Your task to perform on an android device: turn on notifications settings in the gmail app Image 0: 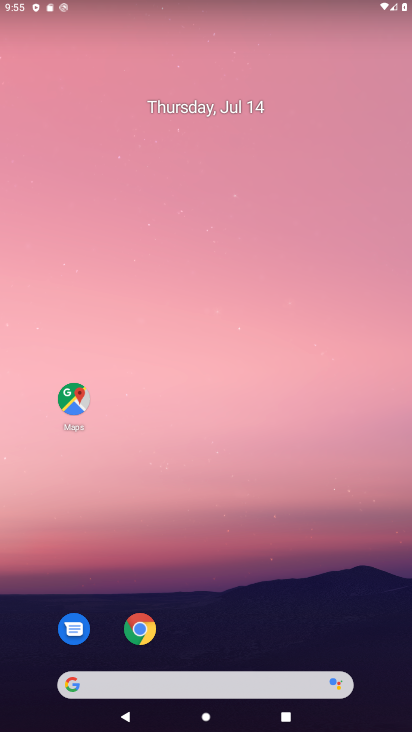
Step 0: drag from (266, 624) to (251, 15)
Your task to perform on an android device: turn on notifications settings in the gmail app Image 1: 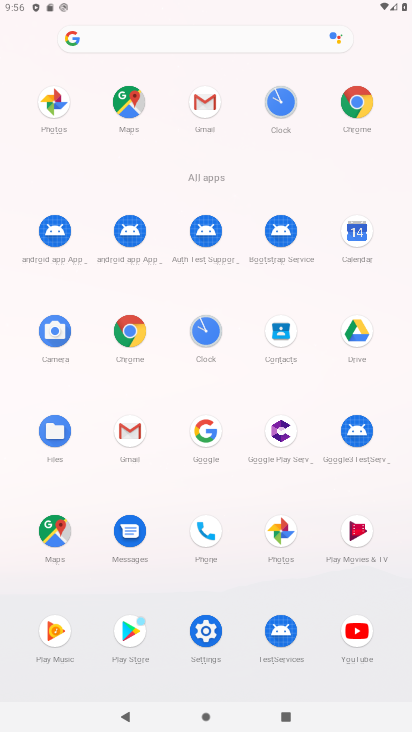
Step 1: click (123, 427)
Your task to perform on an android device: turn on notifications settings in the gmail app Image 2: 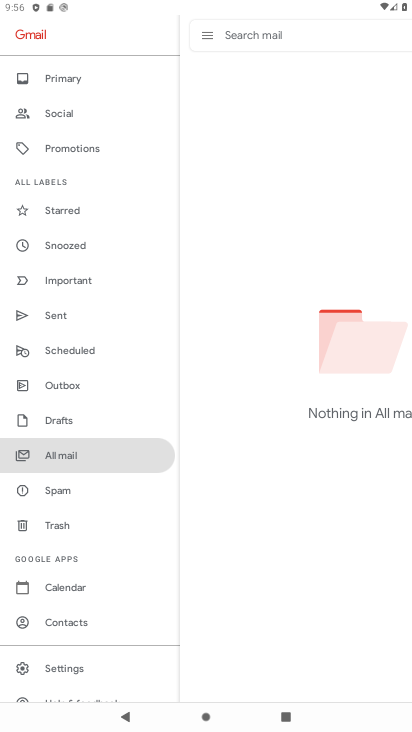
Step 2: click (69, 668)
Your task to perform on an android device: turn on notifications settings in the gmail app Image 3: 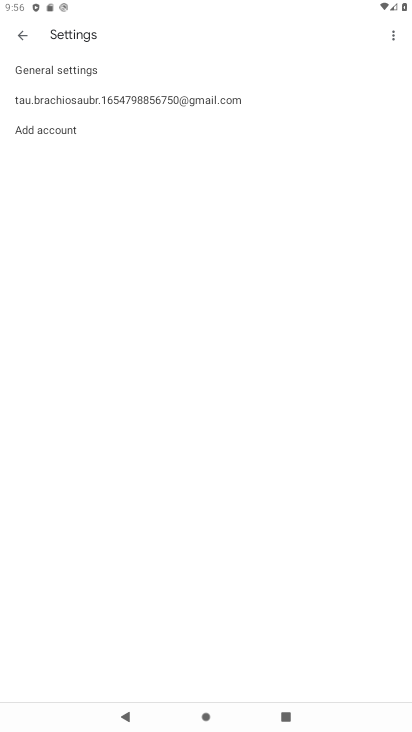
Step 3: click (103, 101)
Your task to perform on an android device: turn on notifications settings in the gmail app Image 4: 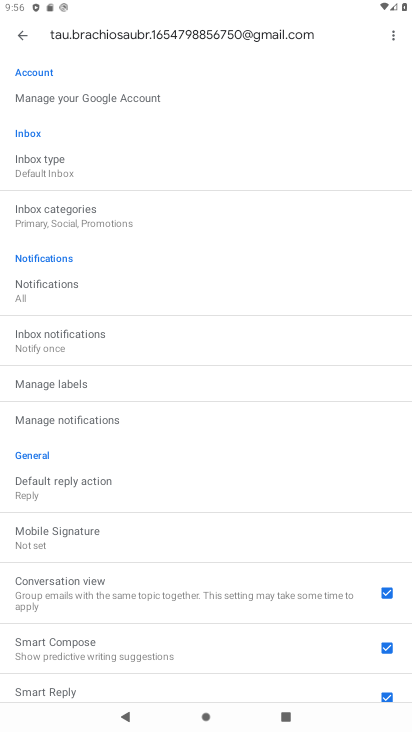
Step 4: click (51, 417)
Your task to perform on an android device: turn on notifications settings in the gmail app Image 5: 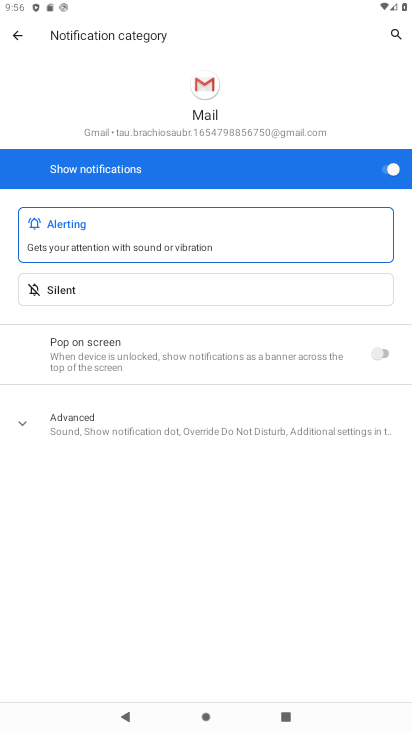
Step 5: task complete